Your task to perform on an android device: Open calendar and show me the second week of next month Image 0: 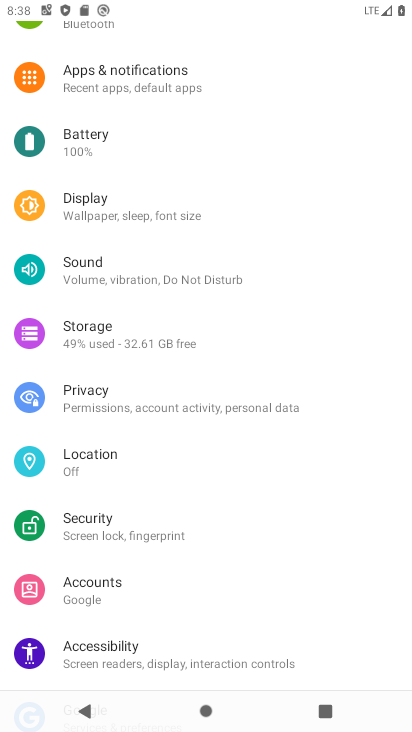
Step 0: press home button
Your task to perform on an android device: Open calendar and show me the second week of next month Image 1: 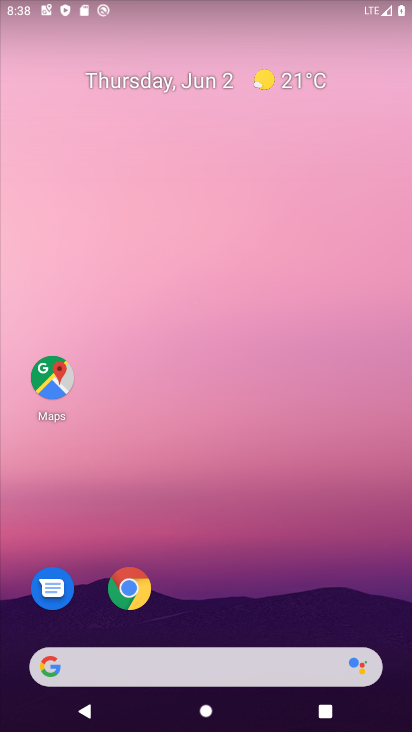
Step 1: drag from (225, 673) to (275, 4)
Your task to perform on an android device: Open calendar and show me the second week of next month Image 2: 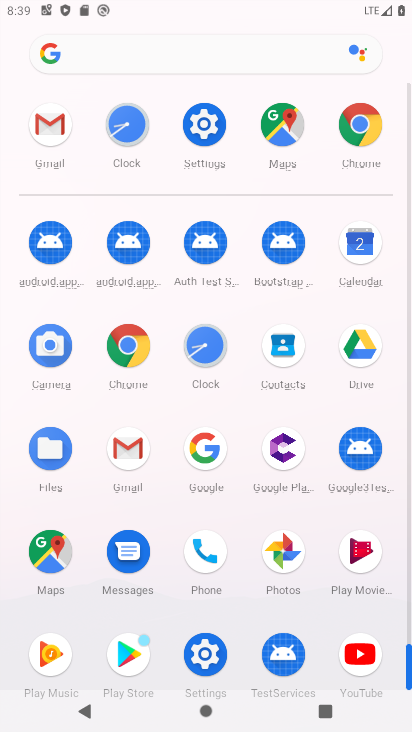
Step 2: click (365, 250)
Your task to perform on an android device: Open calendar and show me the second week of next month Image 3: 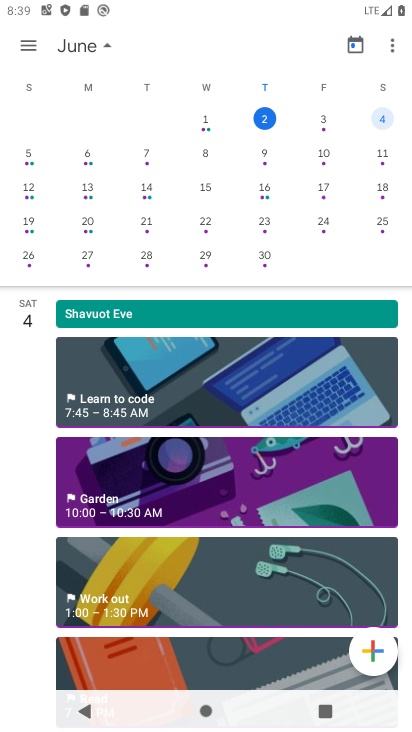
Step 3: drag from (378, 196) to (0, 228)
Your task to perform on an android device: Open calendar and show me the second week of next month Image 4: 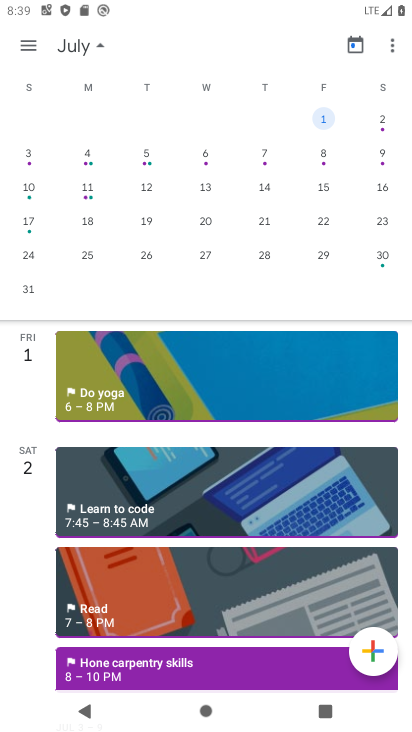
Step 4: click (193, 213)
Your task to perform on an android device: Open calendar and show me the second week of next month Image 5: 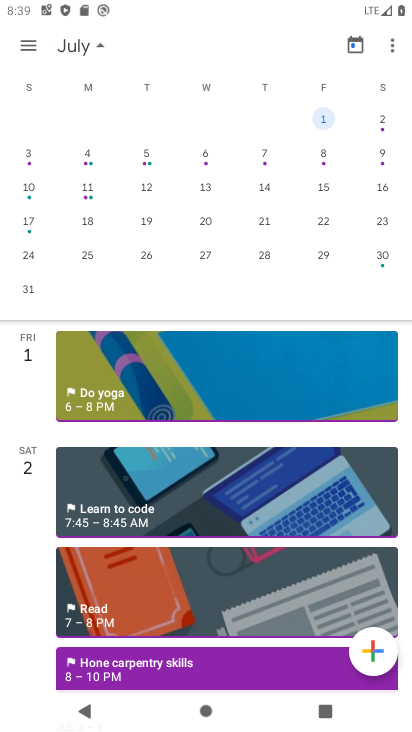
Step 5: click (193, 213)
Your task to perform on an android device: Open calendar and show me the second week of next month Image 6: 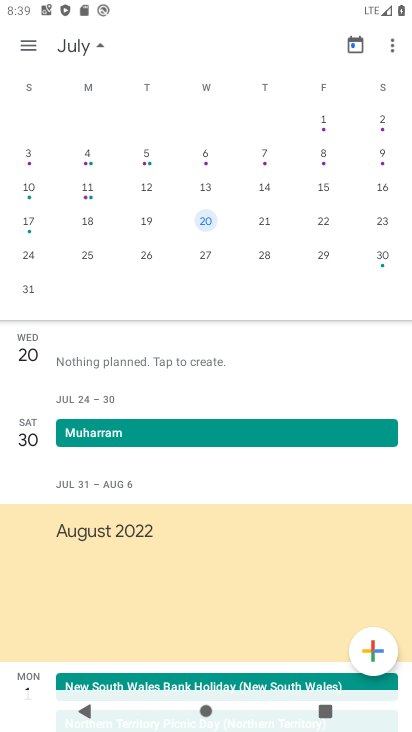
Step 6: click (21, 192)
Your task to perform on an android device: Open calendar and show me the second week of next month Image 7: 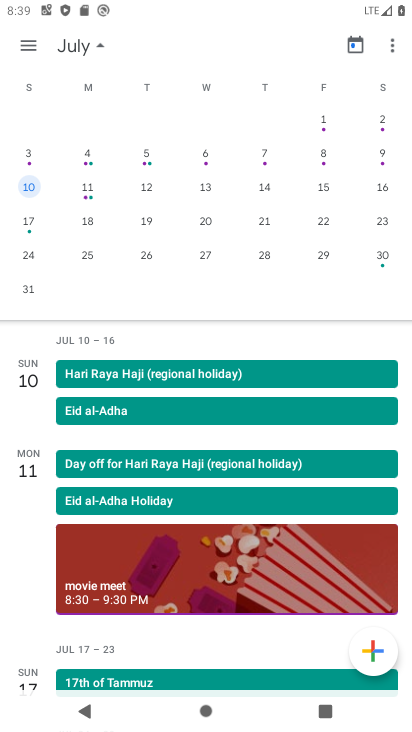
Step 7: task complete